Your task to perform on an android device: Open the calendar and show me this week's events Image 0: 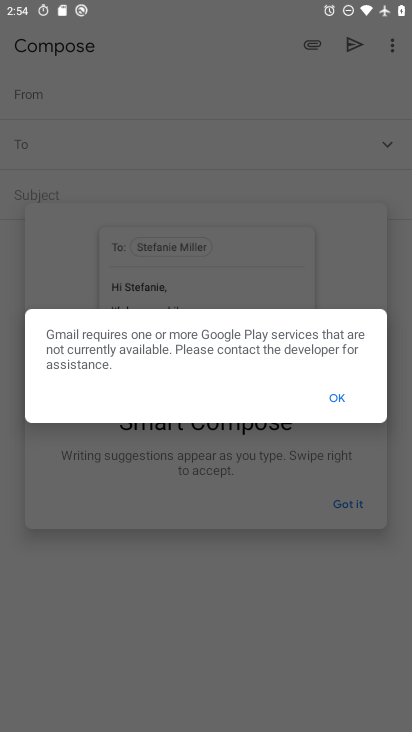
Step 0: press home button
Your task to perform on an android device: Open the calendar and show me this week's events Image 1: 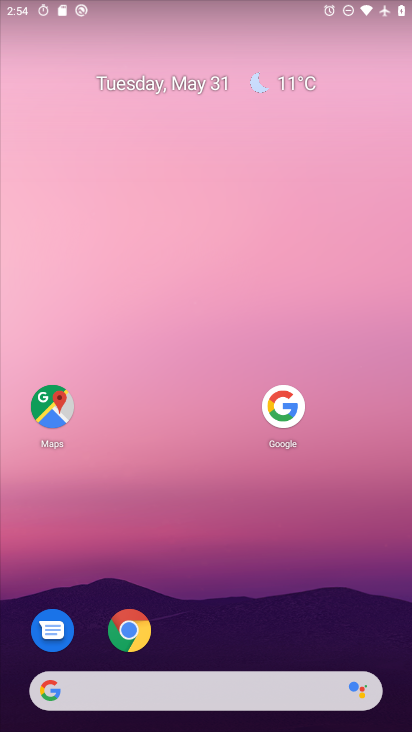
Step 1: drag from (188, 695) to (321, 116)
Your task to perform on an android device: Open the calendar and show me this week's events Image 2: 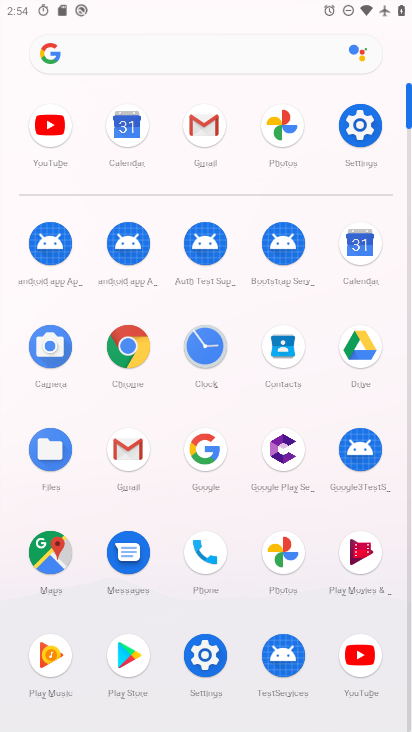
Step 2: click (197, 128)
Your task to perform on an android device: Open the calendar and show me this week's events Image 3: 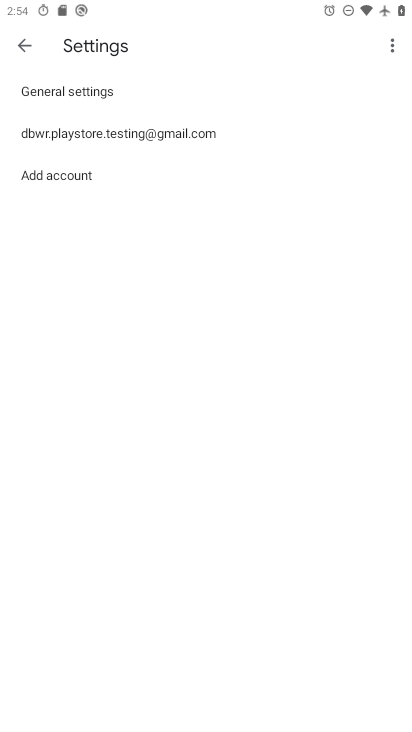
Step 3: press home button
Your task to perform on an android device: Open the calendar and show me this week's events Image 4: 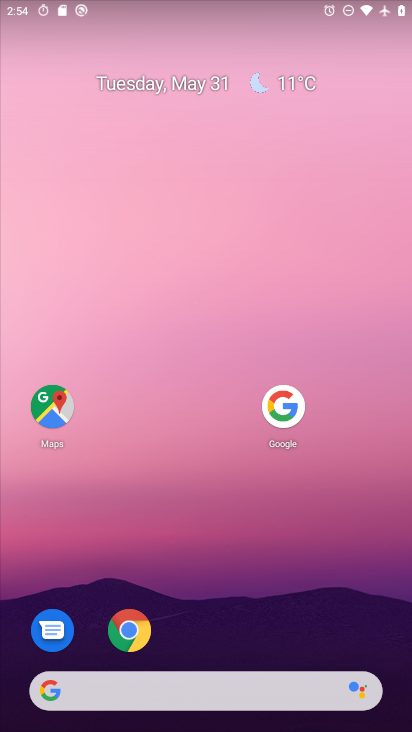
Step 4: drag from (204, 691) to (291, 70)
Your task to perform on an android device: Open the calendar and show me this week's events Image 5: 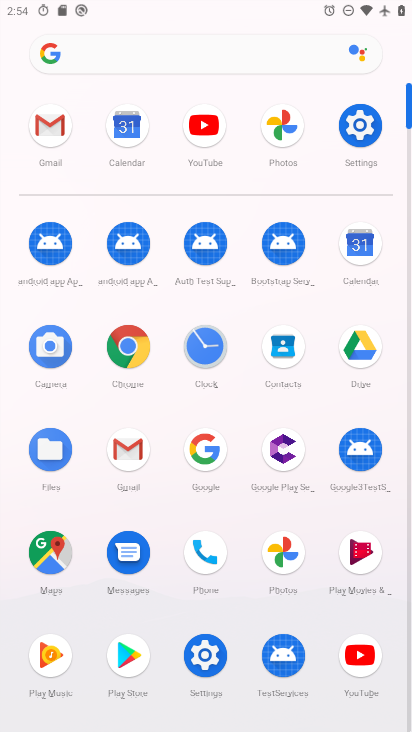
Step 5: click (355, 237)
Your task to perform on an android device: Open the calendar and show me this week's events Image 6: 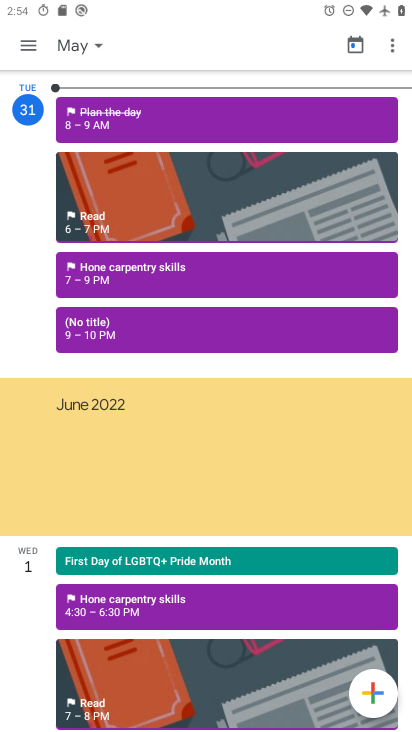
Step 6: click (66, 42)
Your task to perform on an android device: Open the calendar and show me this week's events Image 7: 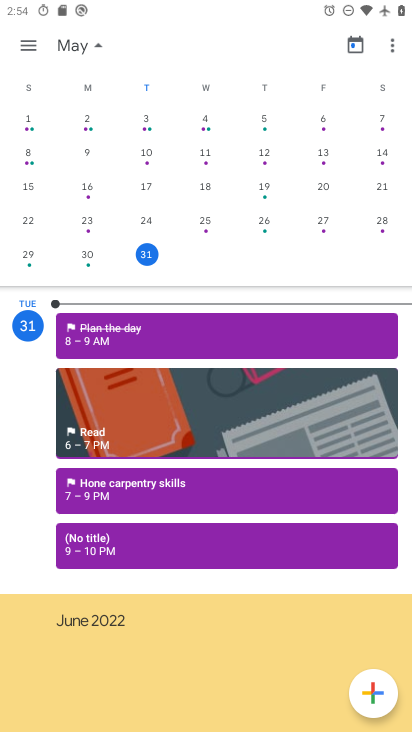
Step 7: click (26, 35)
Your task to perform on an android device: Open the calendar and show me this week's events Image 8: 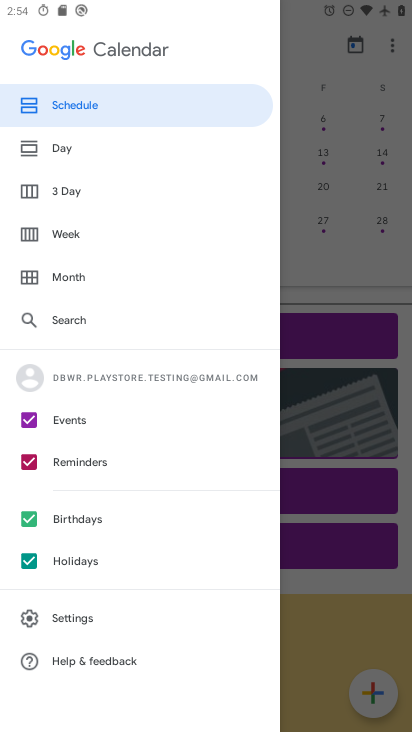
Step 8: click (71, 236)
Your task to perform on an android device: Open the calendar and show me this week's events Image 9: 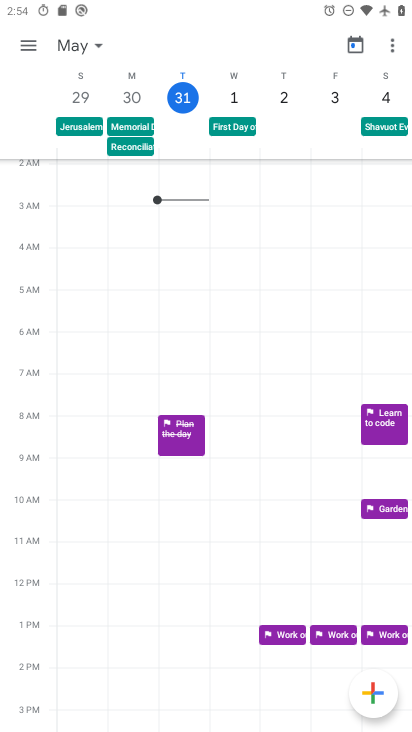
Step 9: click (21, 44)
Your task to perform on an android device: Open the calendar and show me this week's events Image 10: 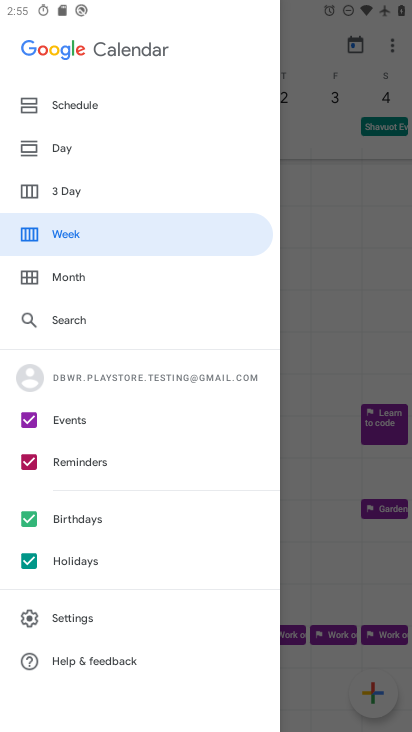
Step 10: click (69, 95)
Your task to perform on an android device: Open the calendar and show me this week's events Image 11: 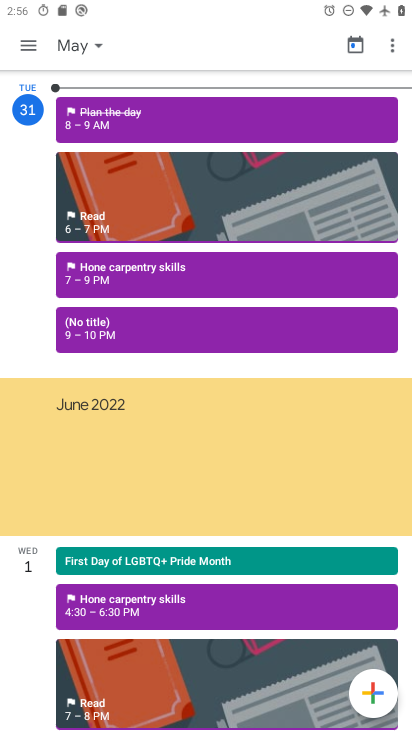
Step 11: click (179, 334)
Your task to perform on an android device: Open the calendar and show me this week's events Image 12: 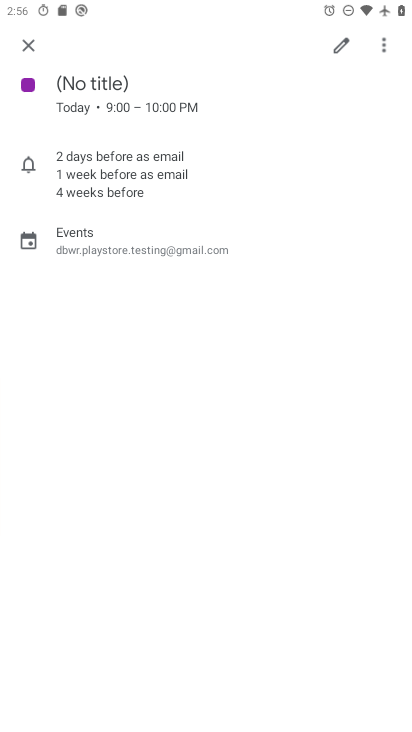
Step 12: task complete